Your task to perform on an android device: Open notification settings Image 0: 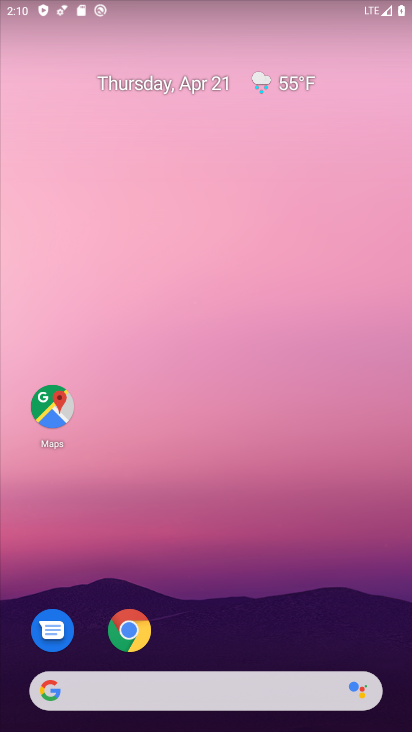
Step 0: drag from (263, 594) to (268, 116)
Your task to perform on an android device: Open notification settings Image 1: 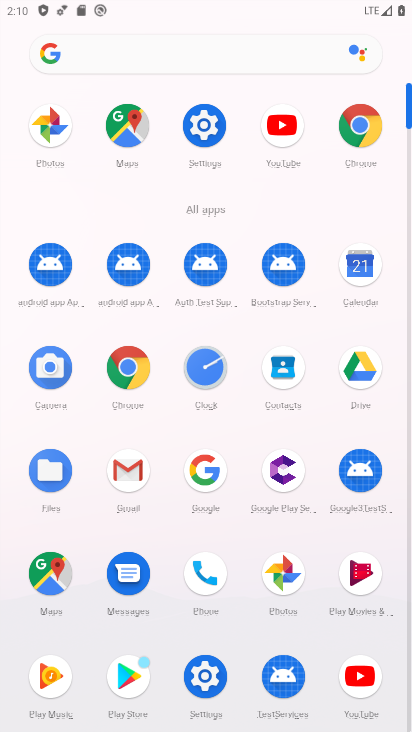
Step 1: click (212, 135)
Your task to perform on an android device: Open notification settings Image 2: 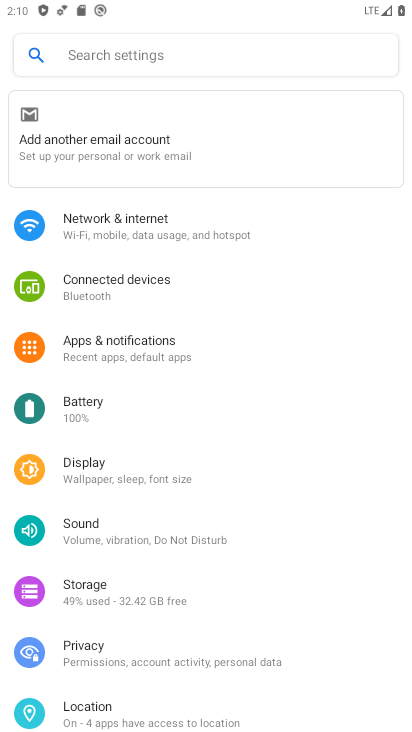
Step 2: click (156, 359)
Your task to perform on an android device: Open notification settings Image 3: 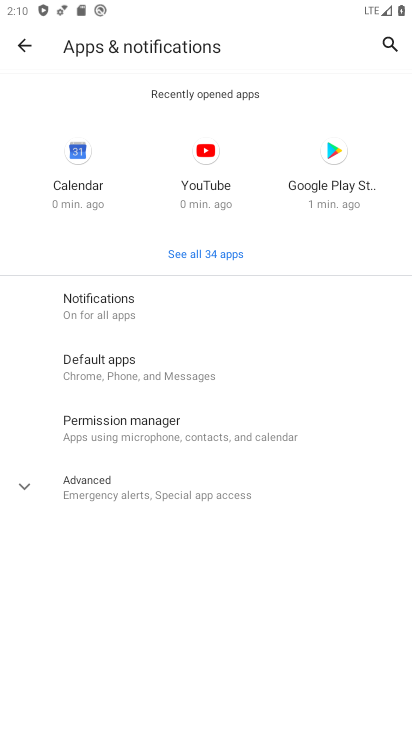
Step 3: click (146, 314)
Your task to perform on an android device: Open notification settings Image 4: 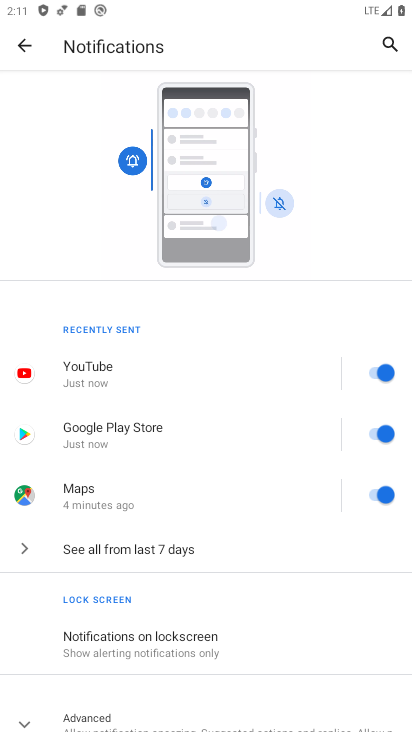
Step 4: task complete